Your task to perform on an android device: check battery use Image 0: 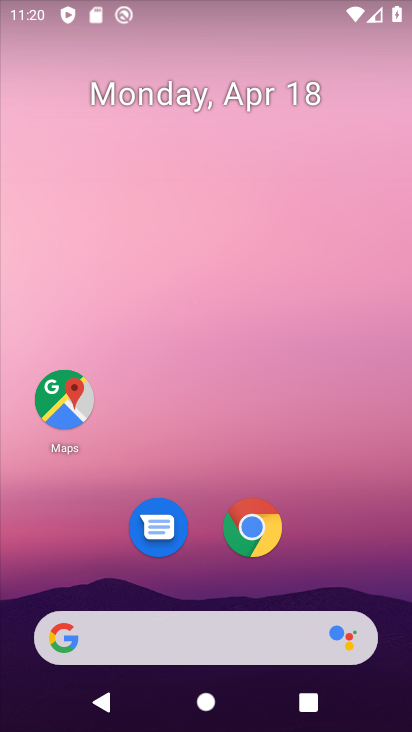
Step 0: drag from (328, 575) to (391, 29)
Your task to perform on an android device: check battery use Image 1: 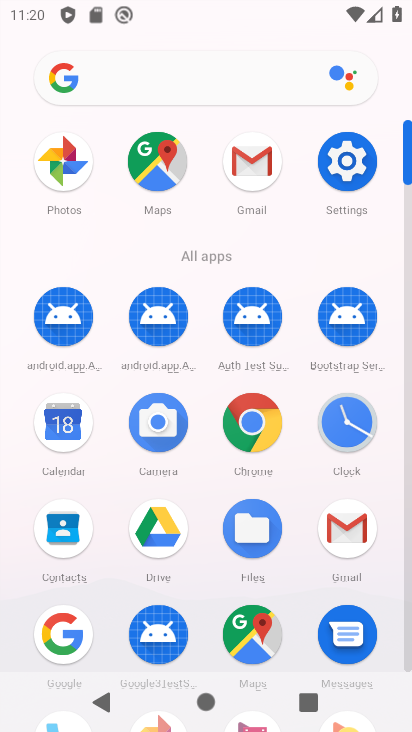
Step 1: click (347, 143)
Your task to perform on an android device: check battery use Image 2: 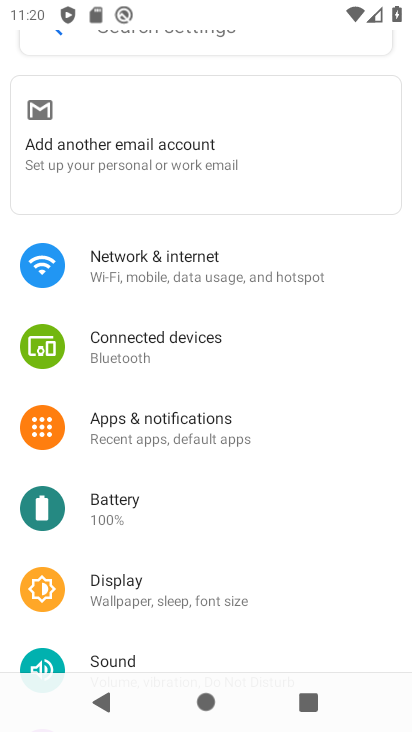
Step 2: click (151, 518)
Your task to perform on an android device: check battery use Image 3: 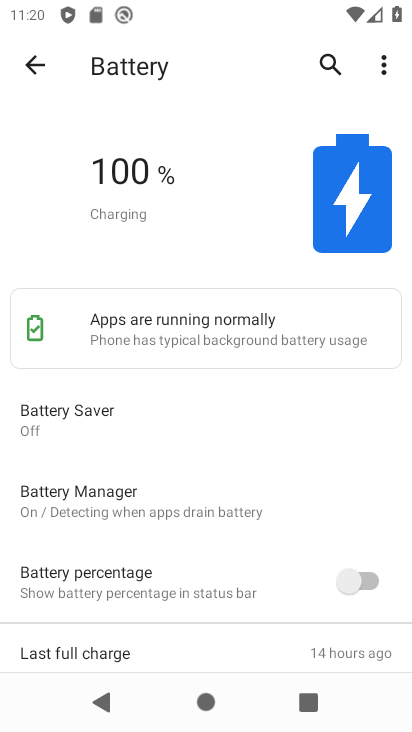
Step 3: click (379, 58)
Your task to perform on an android device: check battery use Image 4: 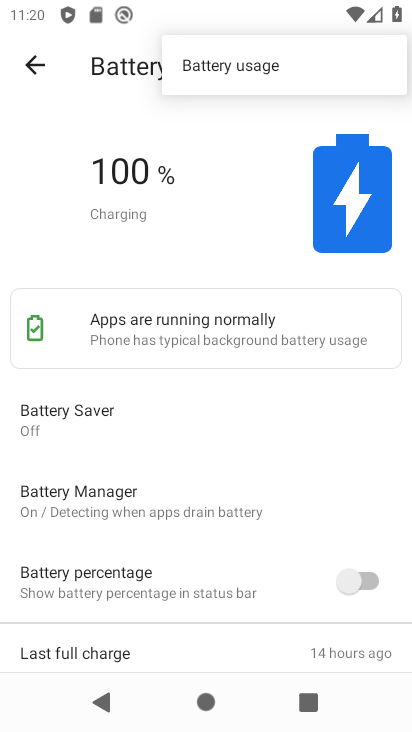
Step 4: click (377, 62)
Your task to perform on an android device: check battery use Image 5: 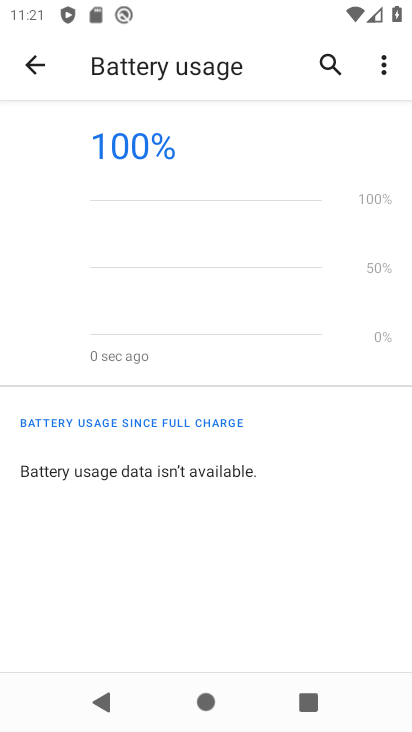
Step 5: task complete